Your task to perform on an android device: turn on the 24-hour format for clock Image 0: 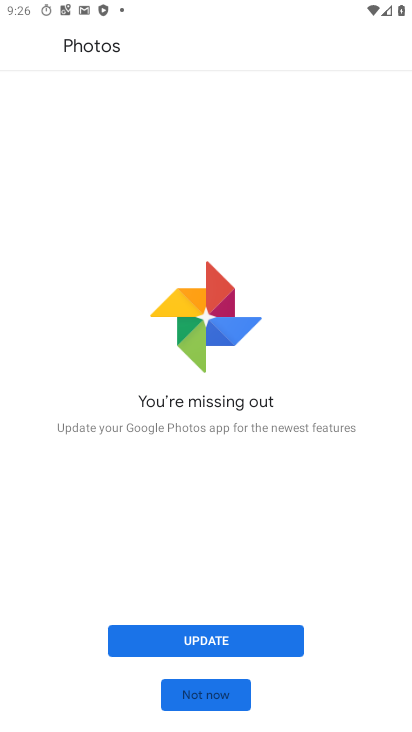
Step 0: press home button
Your task to perform on an android device: turn on the 24-hour format for clock Image 1: 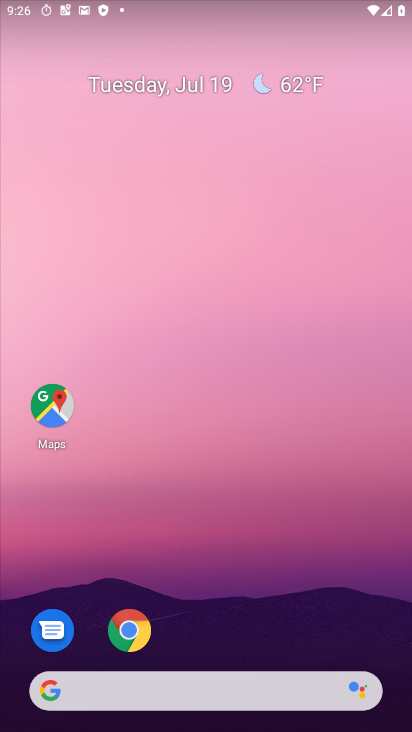
Step 1: drag from (214, 655) to (236, 197)
Your task to perform on an android device: turn on the 24-hour format for clock Image 2: 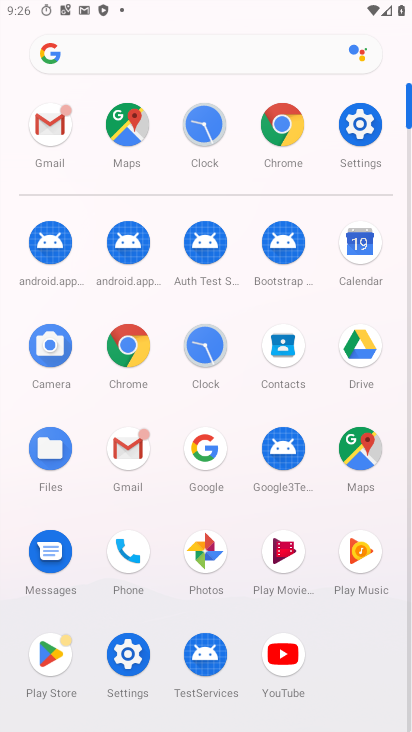
Step 2: click (193, 345)
Your task to perform on an android device: turn on the 24-hour format for clock Image 3: 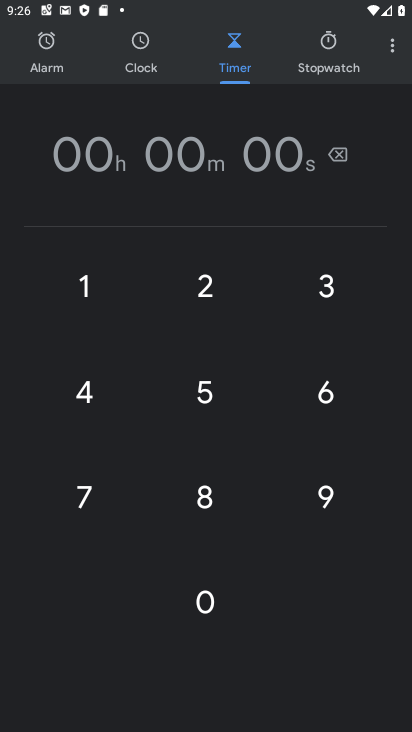
Step 3: click (155, 60)
Your task to perform on an android device: turn on the 24-hour format for clock Image 4: 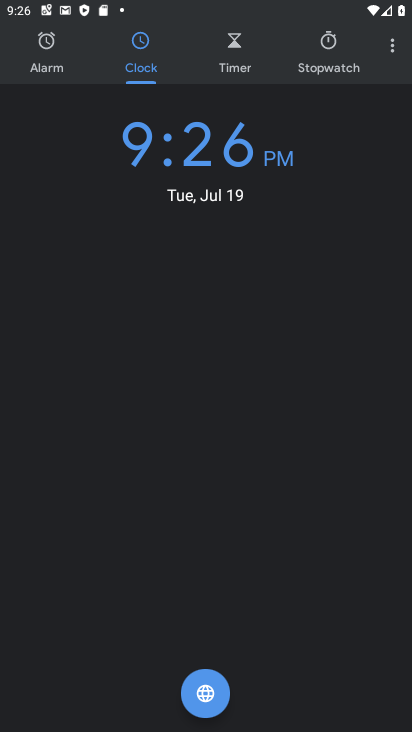
Step 4: click (381, 43)
Your task to perform on an android device: turn on the 24-hour format for clock Image 5: 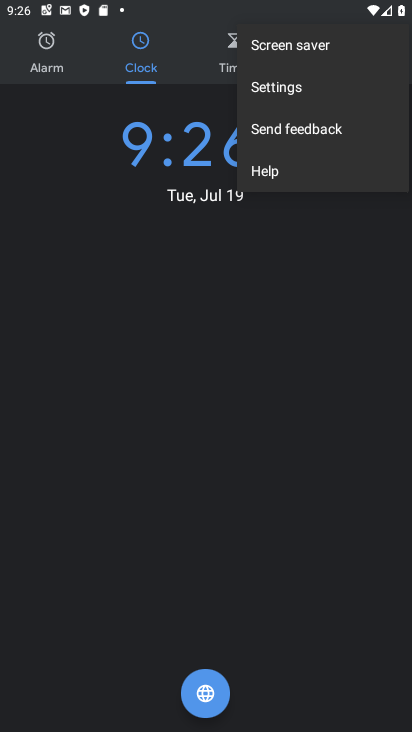
Step 5: click (283, 85)
Your task to perform on an android device: turn on the 24-hour format for clock Image 6: 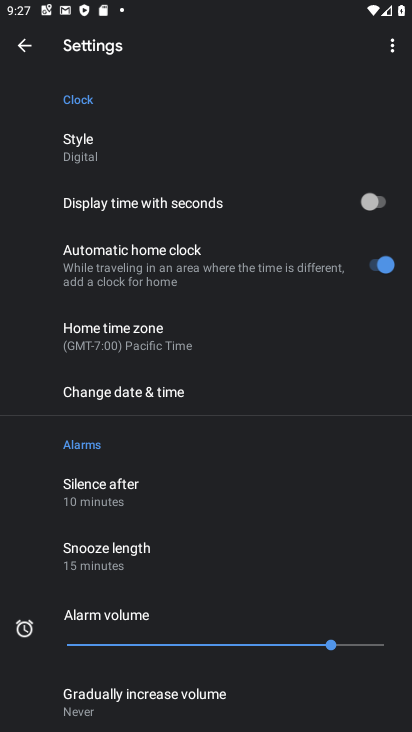
Step 6: click (118, 391)
Your task to perform on an android device: turn on the 24-hour format for clock Image 7: 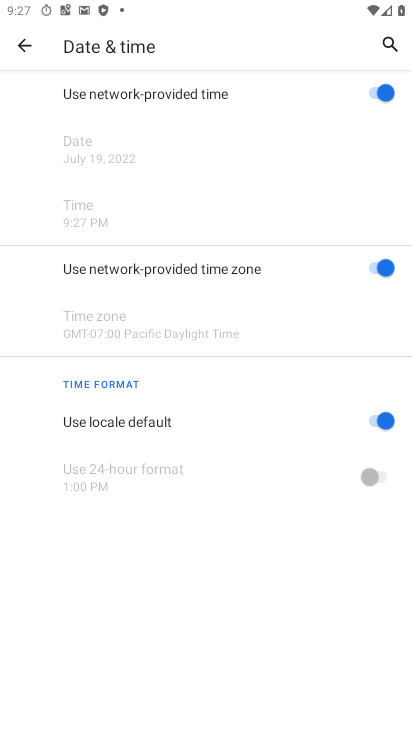
Step 7: click (377, 417)
Your task to perform on an android device: turn on the 24-hour format for clock Image 8: 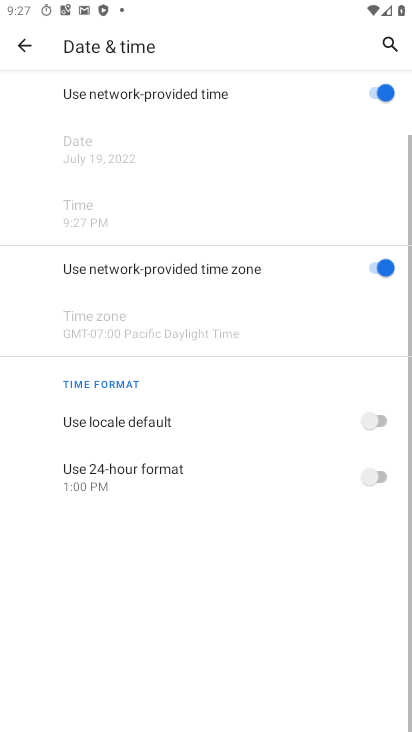
Step 8: click (372, 479)
Your task to perform on an android device: turn on the 24-hour format for clock Image 9: 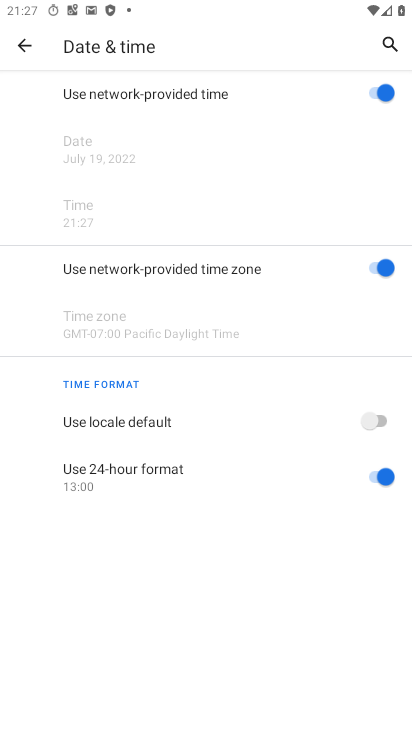
Step 9: task complete